Your task to perform on an android device: Open CNN.com Image 0: 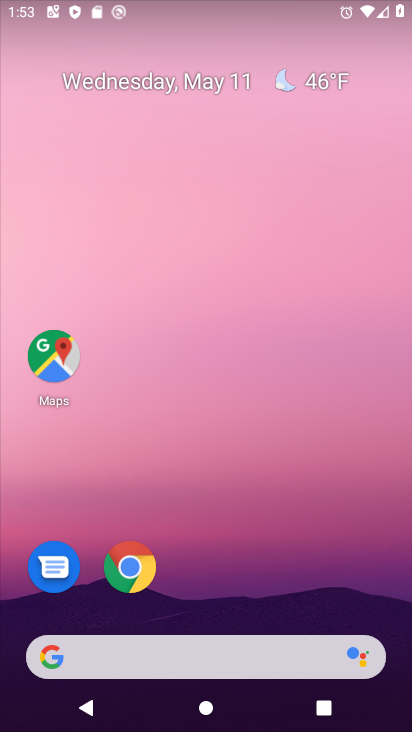
Step 0: click (140, 561)
Your task to perform on an android device: Open CNN.com Image 1: 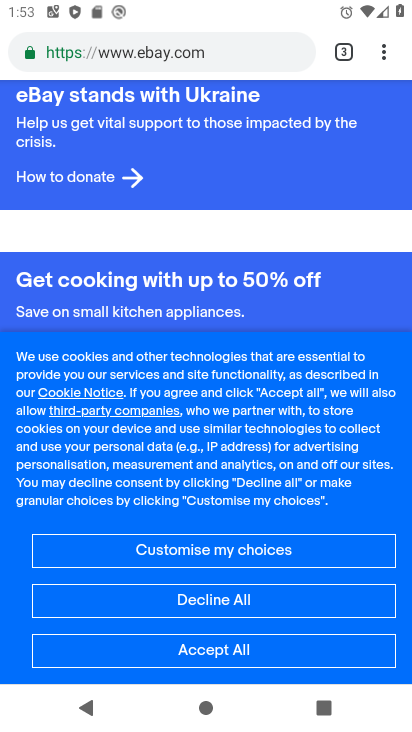
Step 1: click (345, 47)
Your task to perform on an android device: Open CNN.com Image 2: 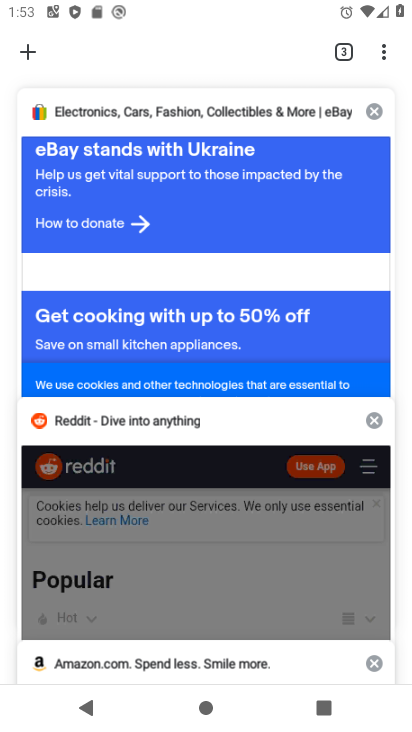
Step 2: click (24, 47)
Your task to perform on an android device: Open CNN.com Image 3: 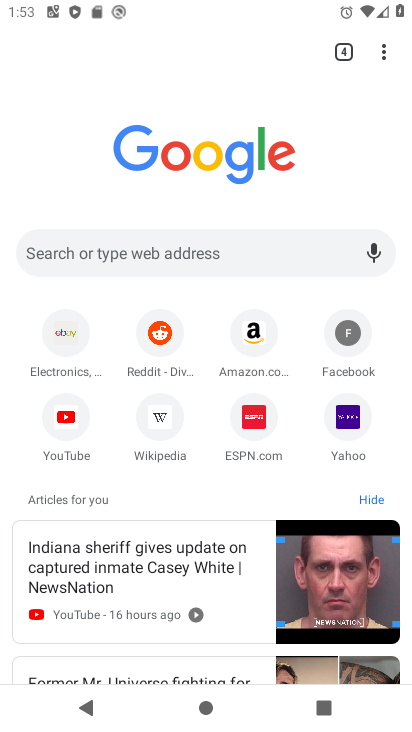
Step 3: click (241, 246)
Your task to perform on an android device: Open CNN.com Image 4: 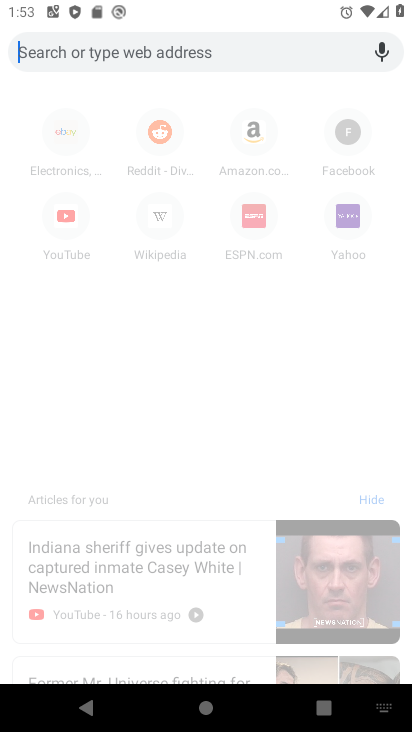
Step 4: type "cnn"
Your task to perform on an android device: Open CNN.com Image 5: 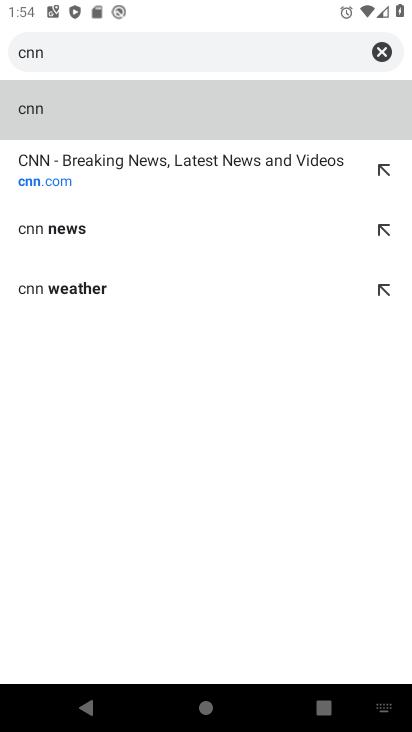
Step 5: click (312, 162)
Your task to perform on an android device: Open CNN.com Image 6: 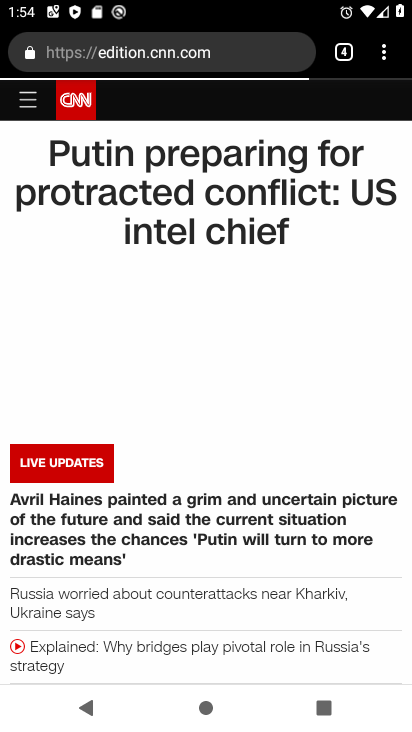
Step 6: task complete